Your task to perform on an android device: Open Google Maps Image 0: 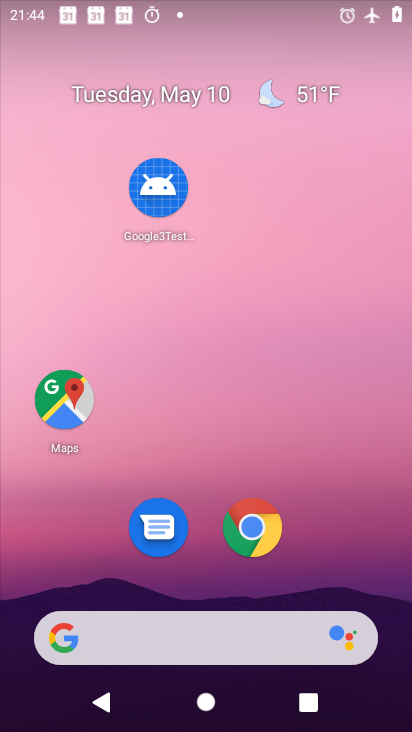
Step 0: drag from (197, 593) to (44, 714)
Your task to perform on an android device: Open Google Maps Image 1: 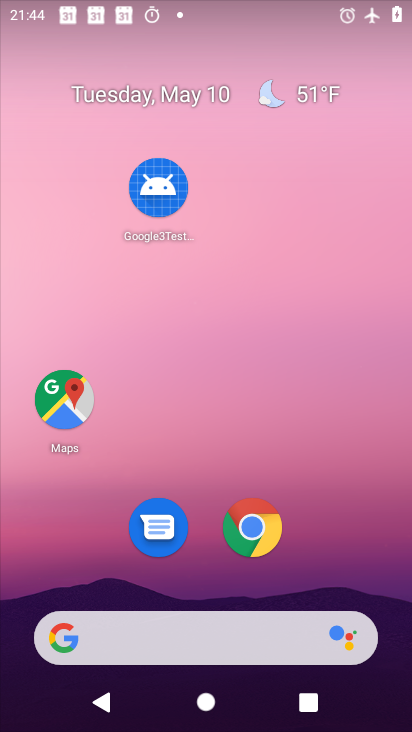
Step 1: click (348, 609)
Your task to perform on an android device: Open Google Maps Image 2: 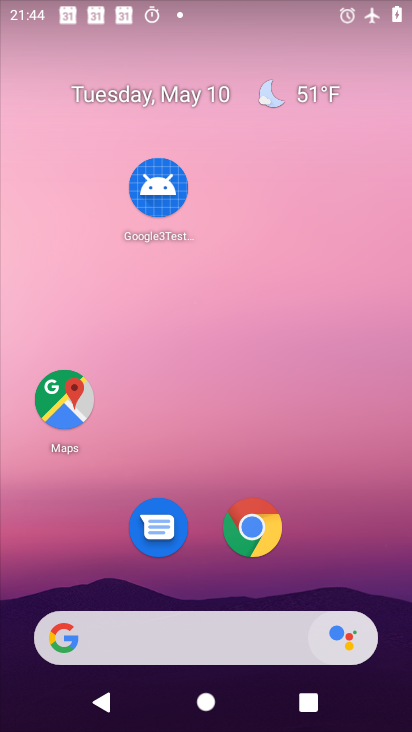
Step 2: drag from (349, 608) to (286, 107)
Your task to perform on an android device: Open Google Maps Image 3: 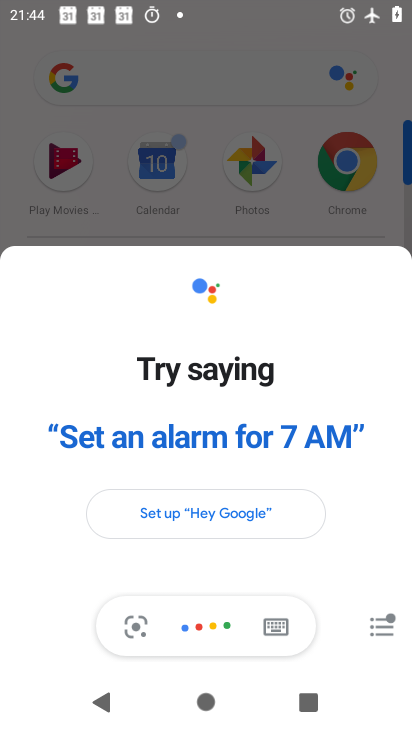
Step 3: click (292, 202)
Your task to perform on an android device: Open Google Maps Image 4: 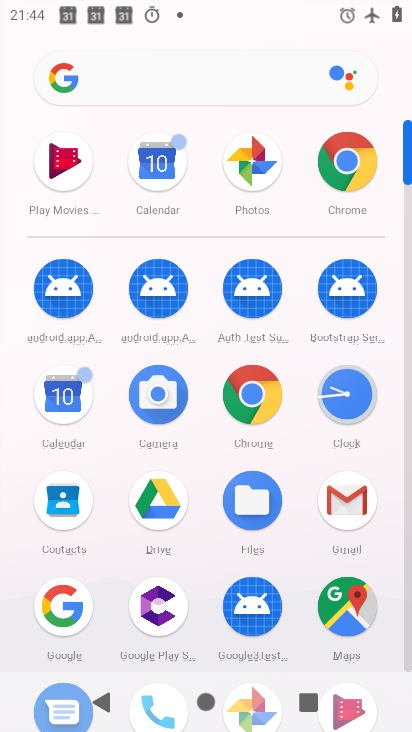
Step 4: click (354, 625)
Your task to perform on an android device: Open Google Maps Image 5: 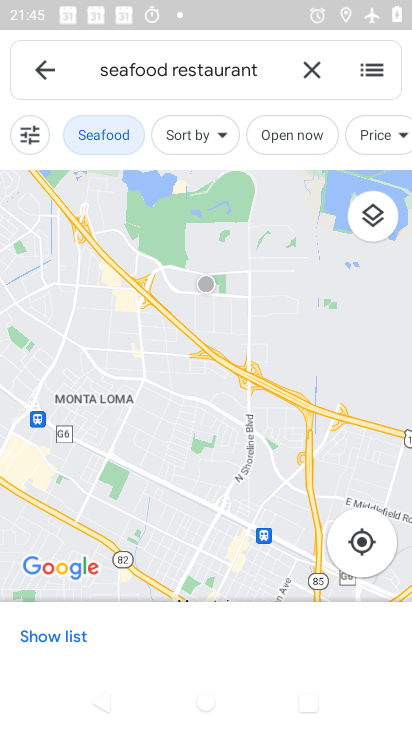
Step 5: task complete